Your task to perform on an android device: turn pop-ups on in chrome Image 0: 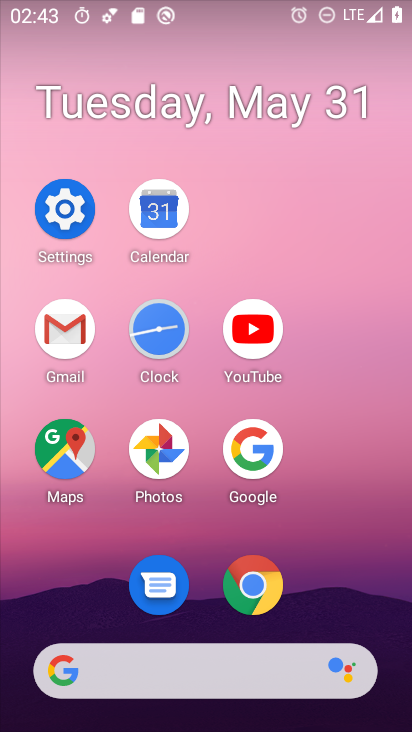
Step 0: click (261, 587)
Your task to perform on an android device: turn pop-ups on in chrome Image 1: 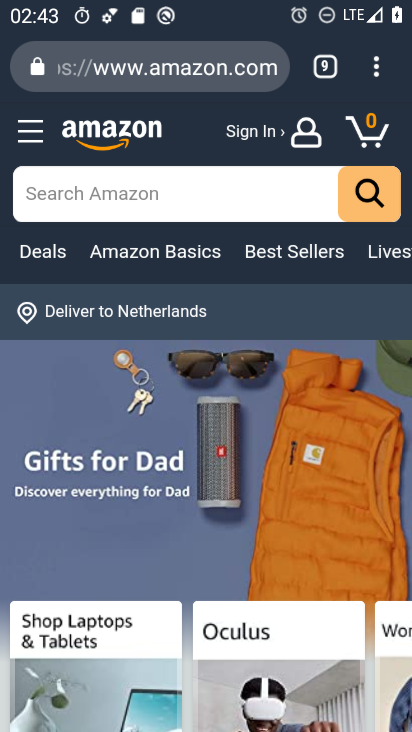
Step 1: click (374, 56)
Your task to perform on an android device: turn pop-ups on in chrome Image 2: 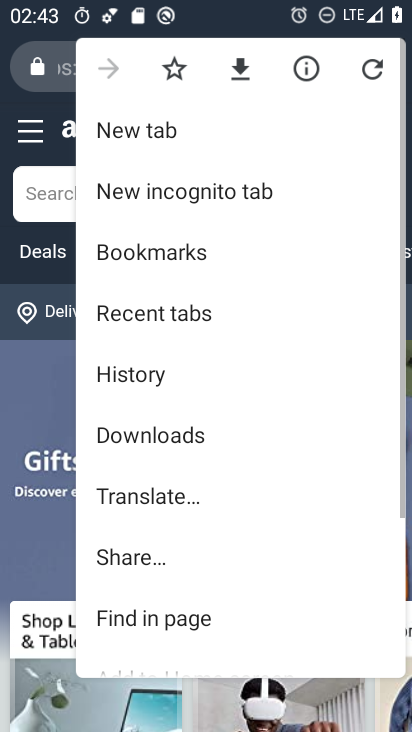
Step 2: drag from (221, 457) to (250, 56)
Your task to perform on an android device: turn pop-ups on in chrome Image 3: 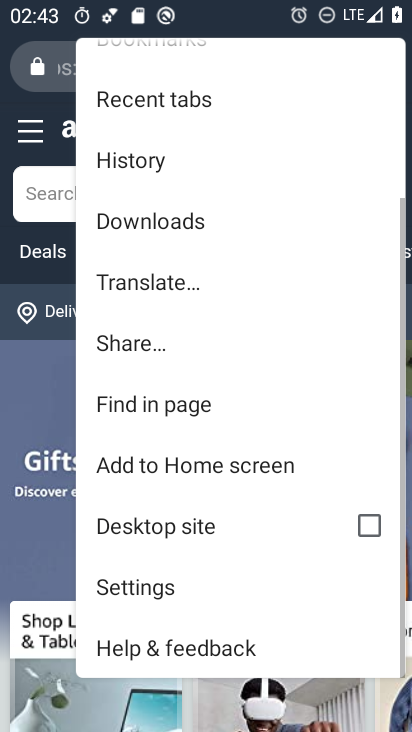
Step 3: click (195, 594)
Your task to perform on an android device: turn pop-ups on in chrome Image 4: 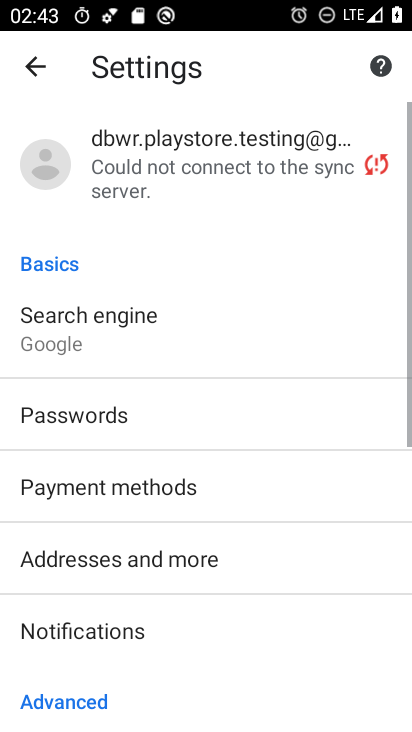
Step 4: drag from (199, 589) to (242, 128)
Your task to perform on an android device: turn pop-ups on in chrome Image 5: 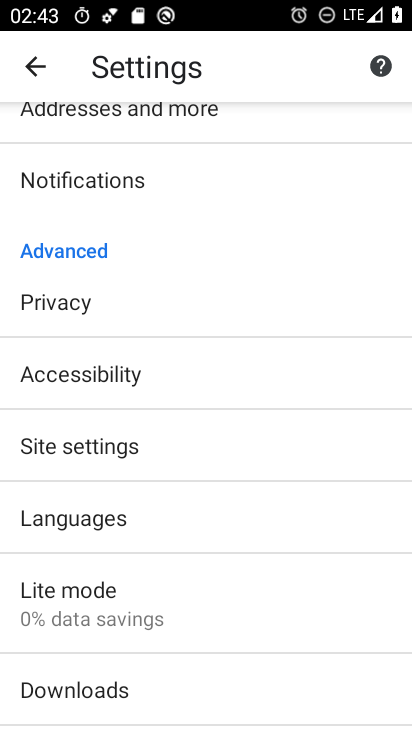
Step 5: click (157, 469)
Your task to perform on an android device: turn pop-ups on in chrome Image 6: 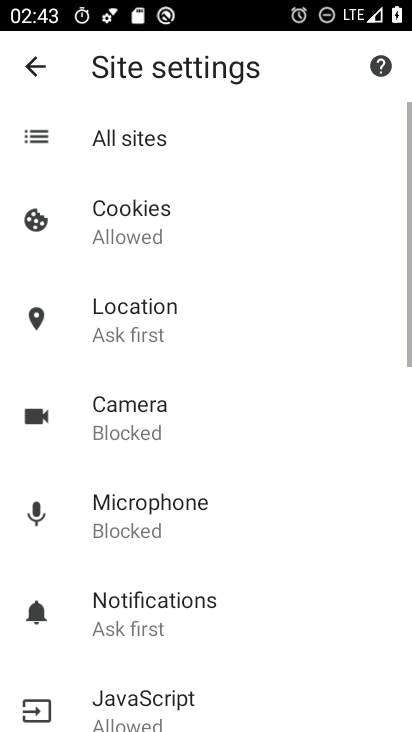
Step 6: drag from (193, 604) to (219, 239)
Your task to perform on an android device: turn pop-ups on in chrome Image 7: 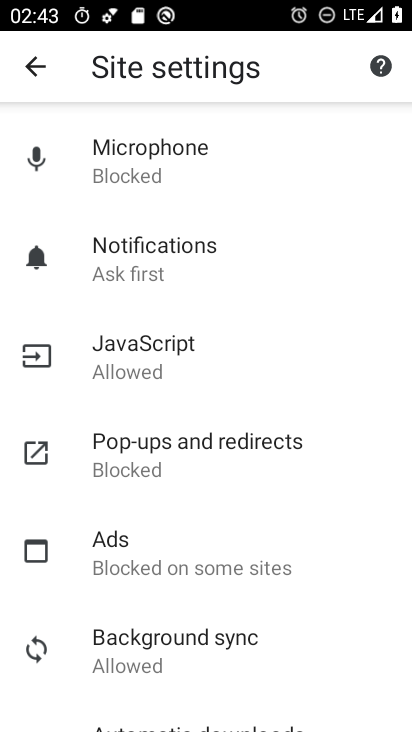
Step 7: drag from (205, 598) to (206, 331)
Your task to perform on an android device: turn pop-ups on in chrome Image 8: 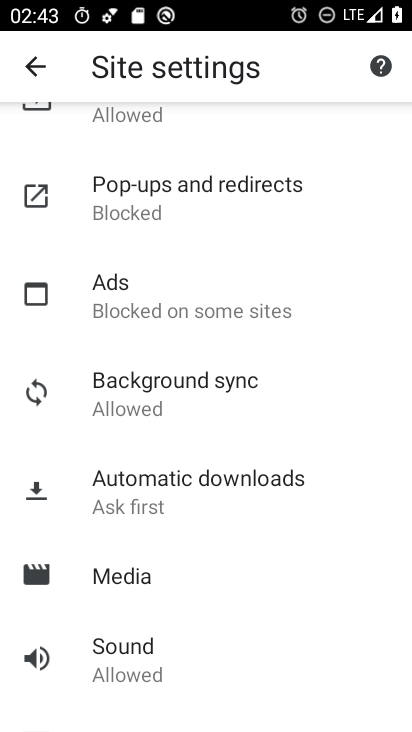
Step 8: click (218, 206)
Your task to perform on an android device: turn pop-ups on in chrome Image 9: 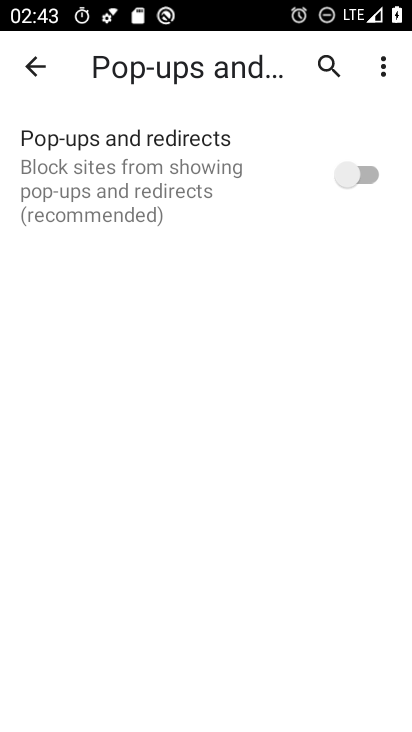
Step 9: click (355, 177)
Your task to perform on an android device: turn pop-ups on in chrome Image 10: 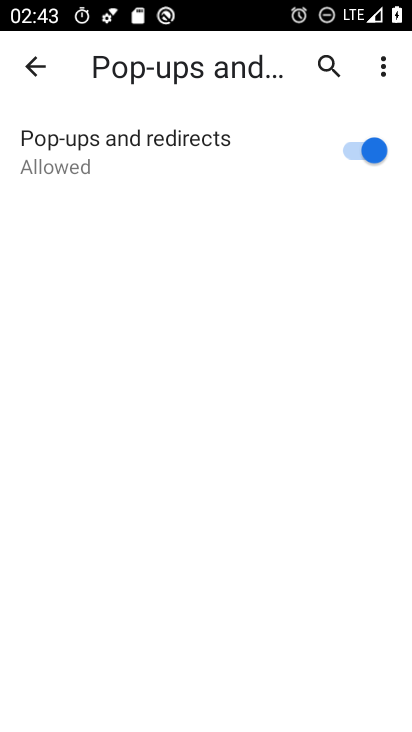
Step 10: task complete